Your task to perform on an android device: Install the ESPN app Image 0: 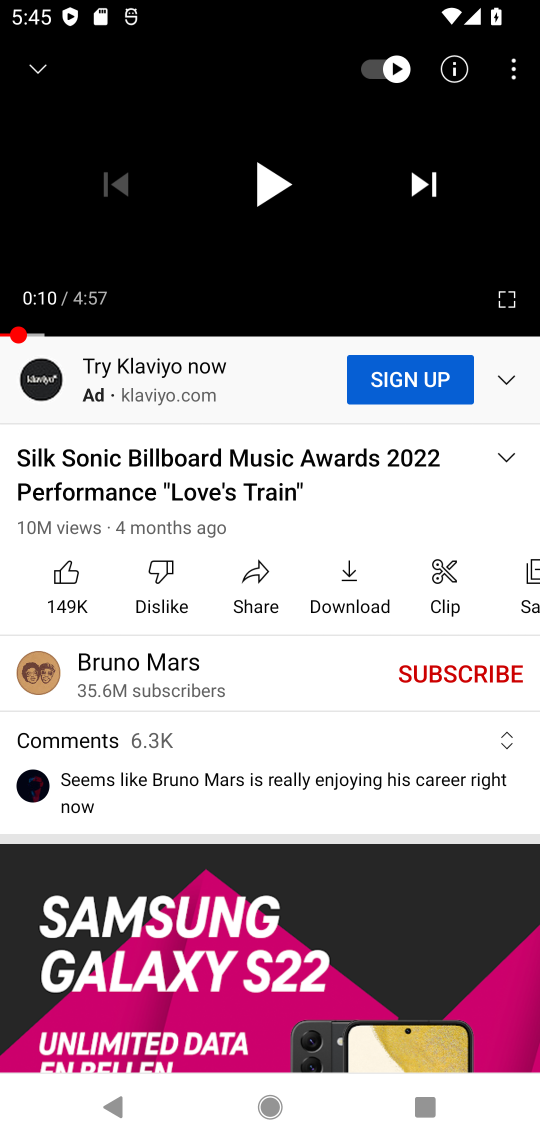
Step 0: press home button
Your task to perform on an android device: Install the ESPN app Image 1: 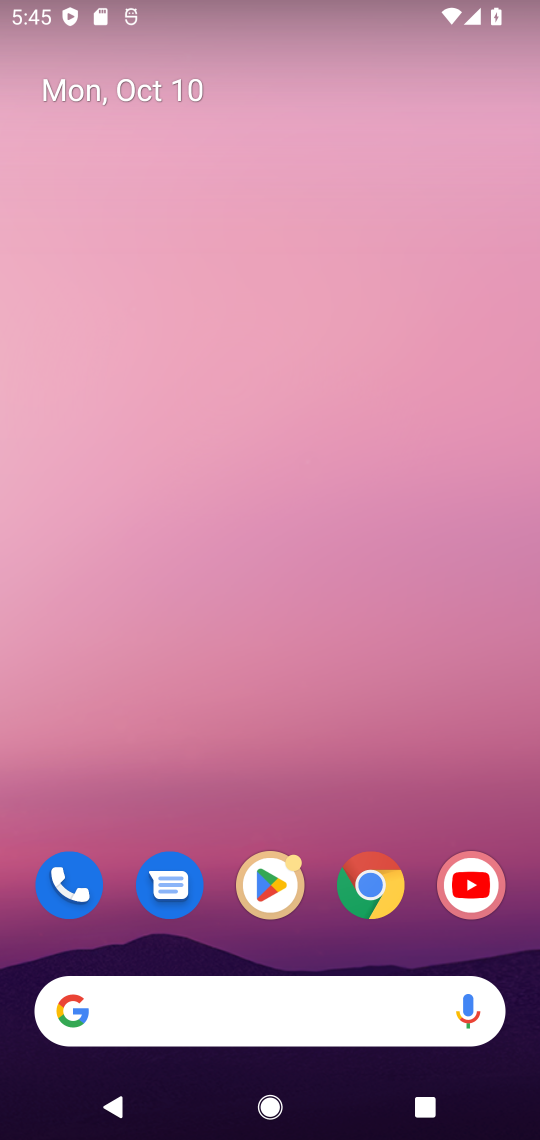
Step 1: click (282, 883)
Your task to perform on an android device: Install the ESPN app Image 2: 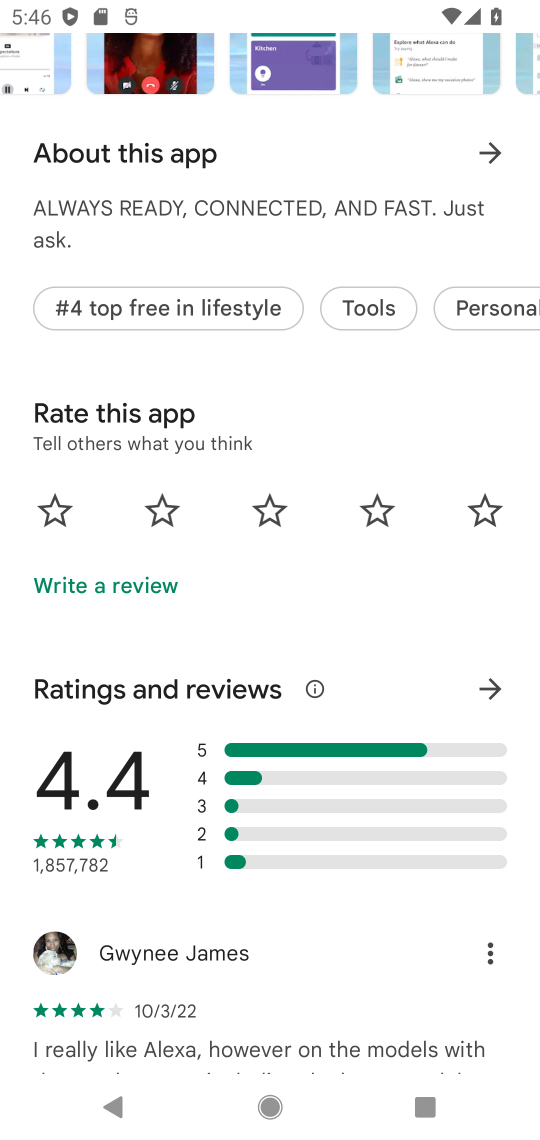
Step 2: drag from (339, 396) to (375, 1094)
Your task to perform on an android device: Install the ESPN app Image 3: 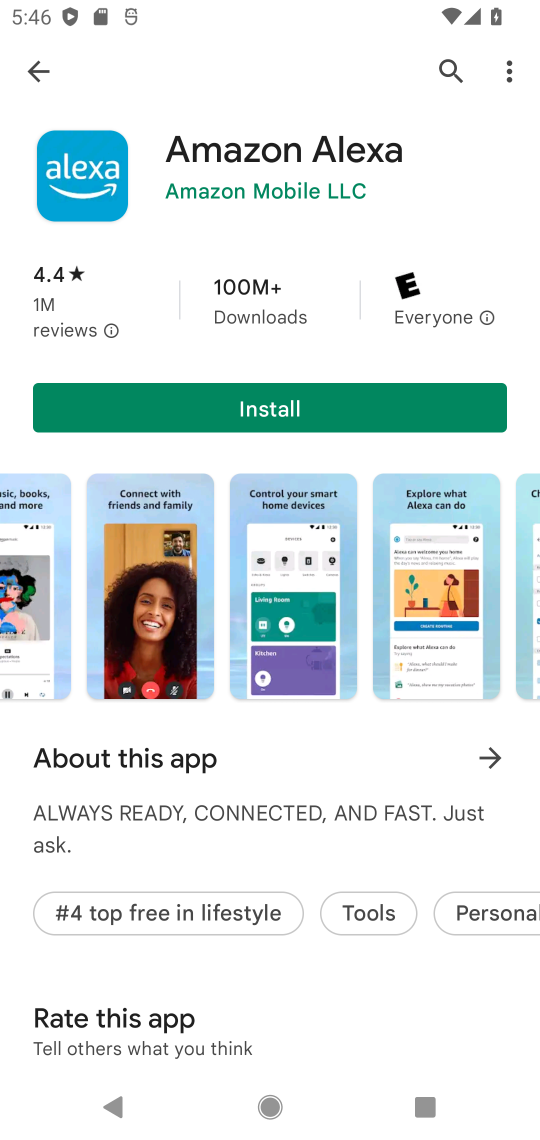
Step 3: click (455, 73)
Your task to perform on an android device: Install the ESPN app Image 4: 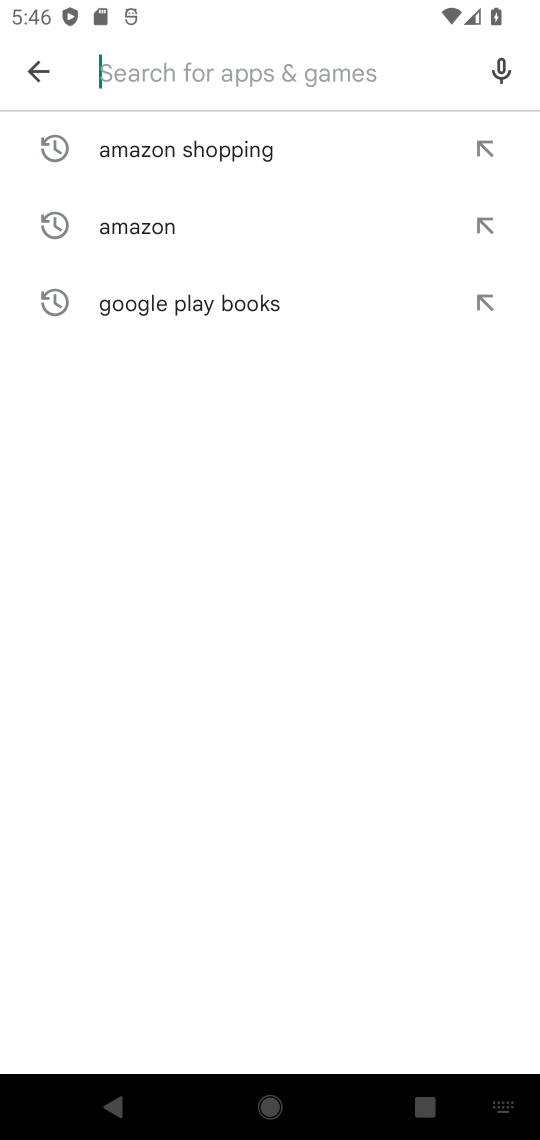
Step 4: click (268, 82)
Your task to perform on an android device: Install the ESPN app Image 5: 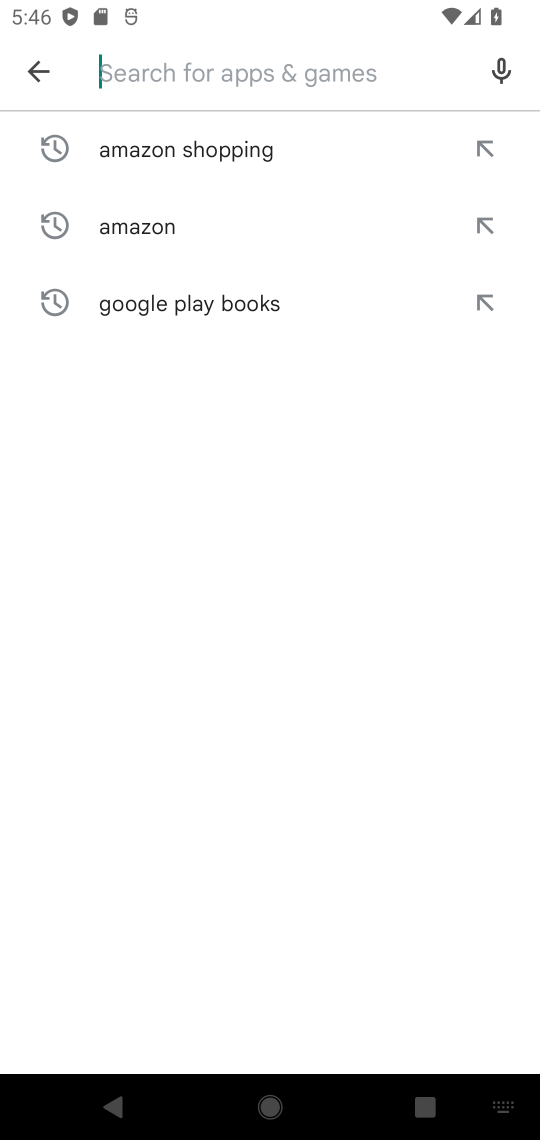
Step 5: type "espn"
Your task to perform on an android device: Install the ESPN app Image 6: 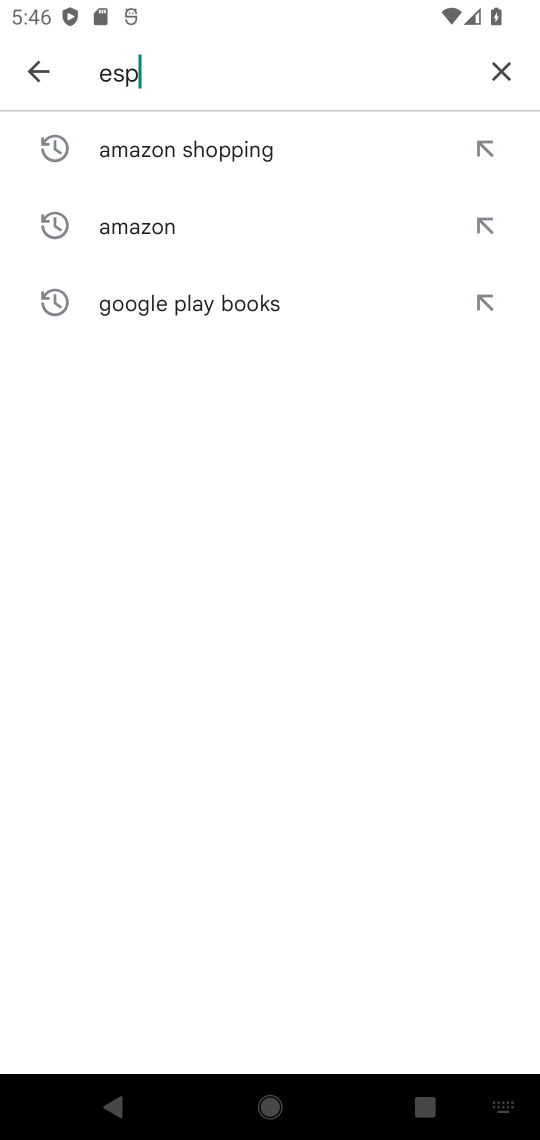
Step 6: type ""
Your task to perform on an android device: Install the ESPN app Image 7: 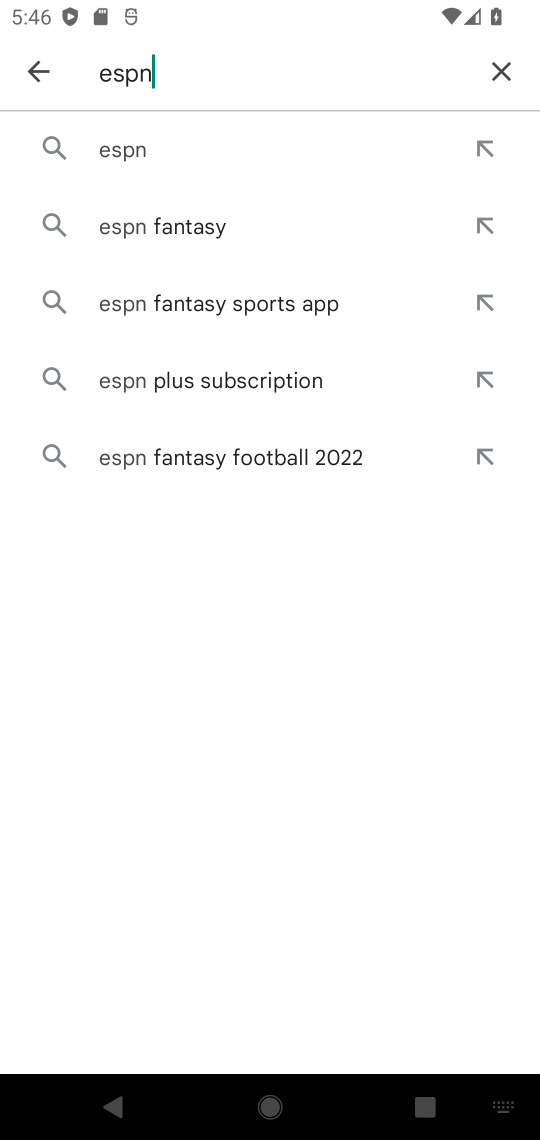
Step 7: click (128, 150)
Your task to perform on an android device: Install the ESPN app Image 8: 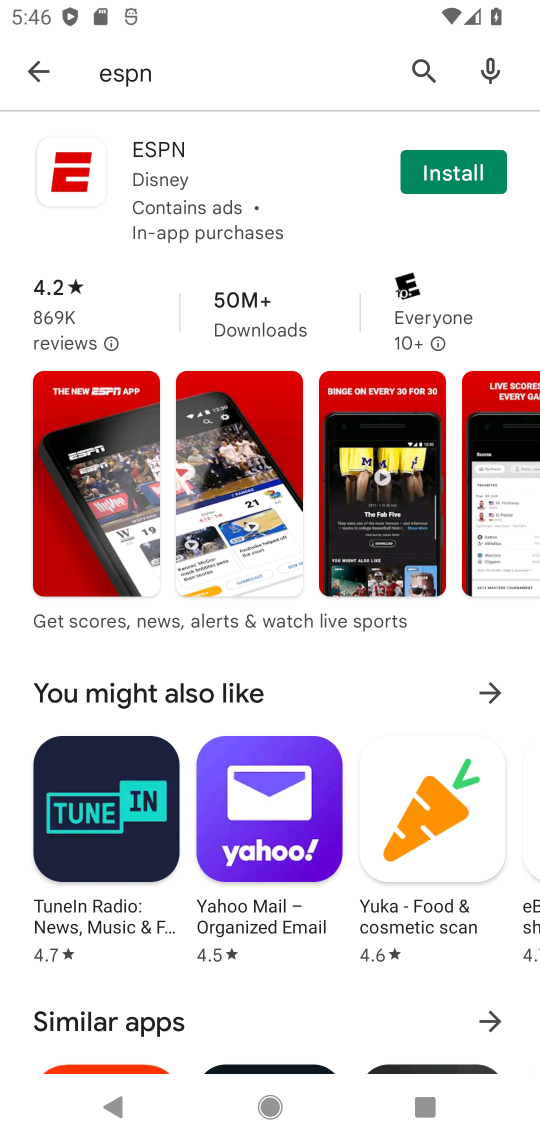
Step 8: click (445, 173)
Your task to perform on an android device: Install the ESPN app Image 9: 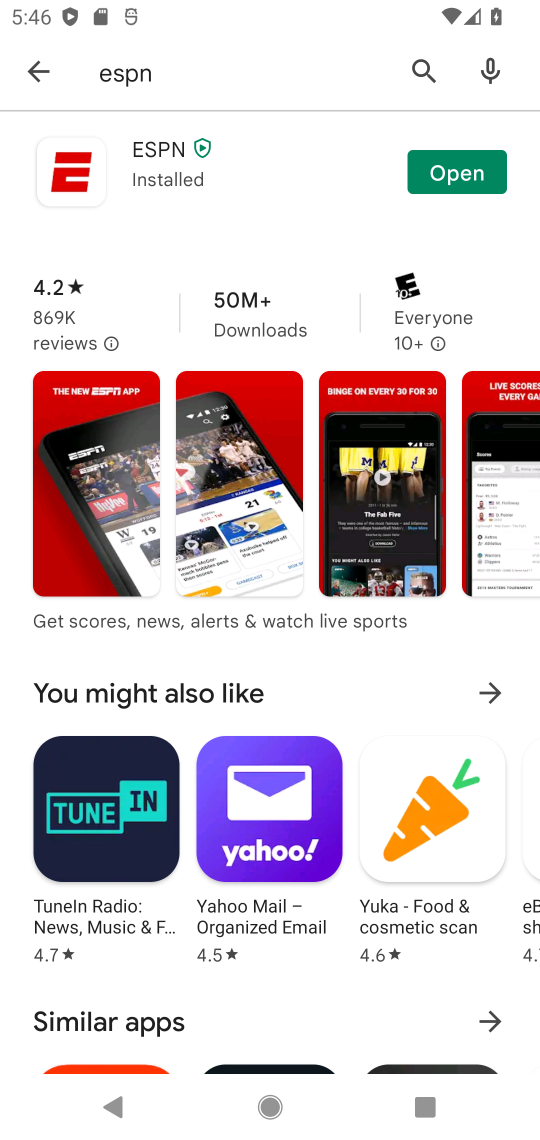
Step 9: click (445, 173)
Your task to perform on an android device: Install the ESPN app Image 10: 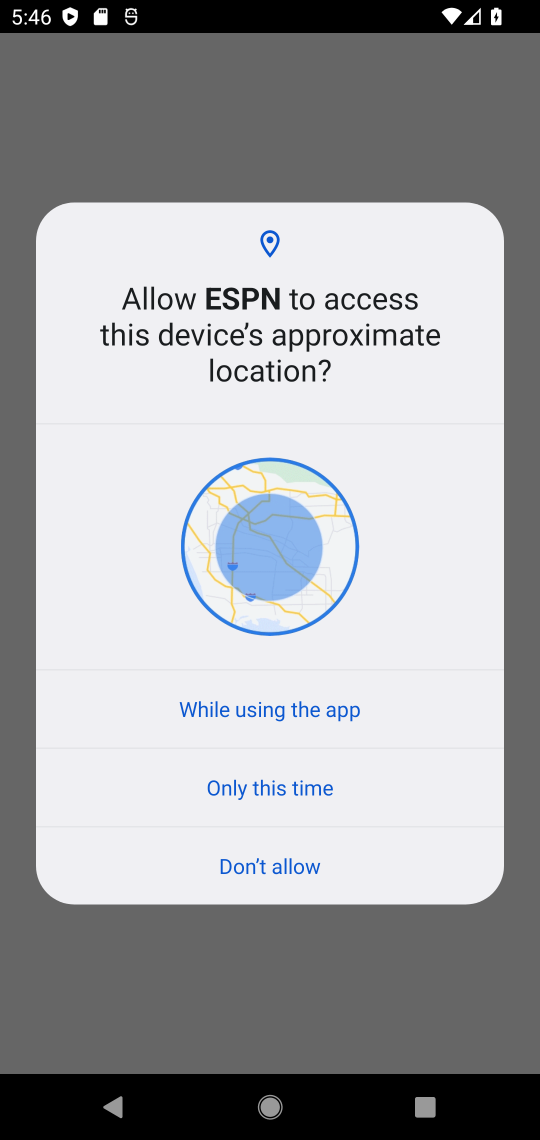
Step 10: task complete